Your task to perform on an android device: Open privacy settings Image 0: 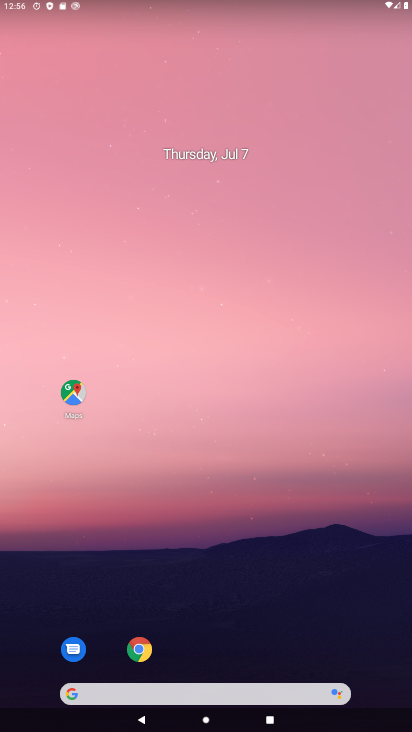
Step 0: drag from (206, 654) to (149, 163)
Your task to perform on an android device: Open privacy settings Image 1: 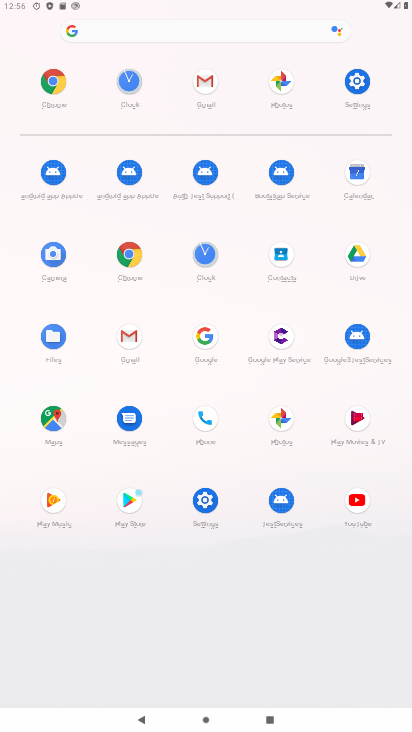
Step 1: click (358, 82)
Your task to perform on an android device: Open privacy settings Image 2: 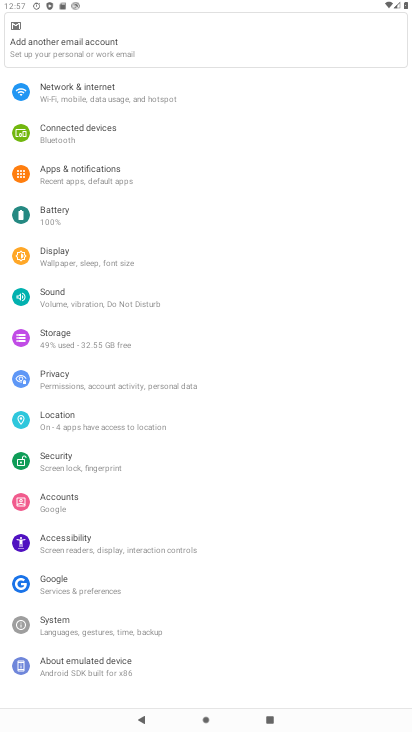
Step 2: click (60, 371)
Your task to perform on an android device: Open privacy settings Image 3: 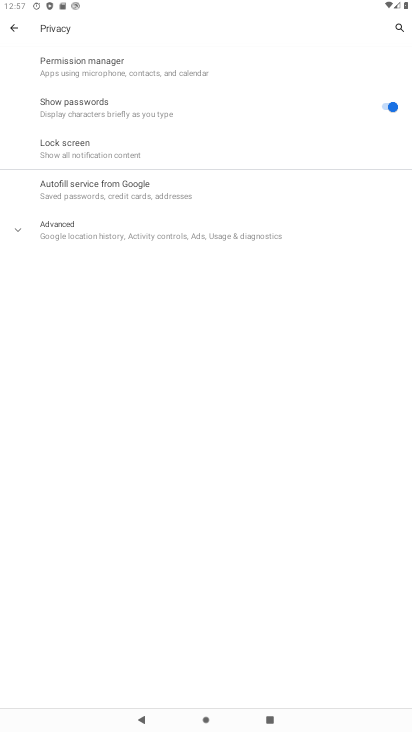
Step 3: task complete